Your task to perform on an android device: Open CNN.com Image 0: 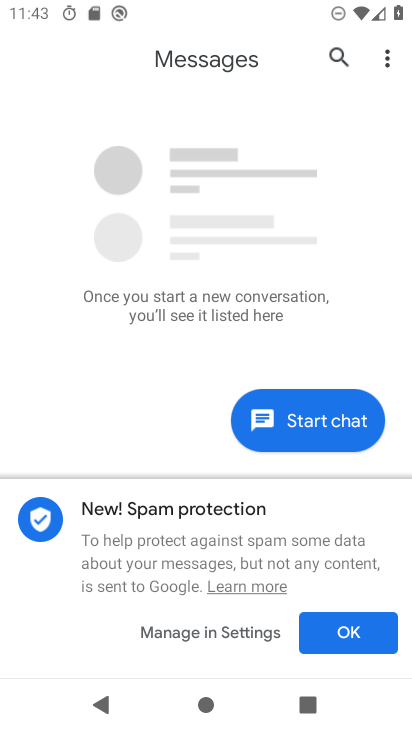
Step 0: drag from (187, 603) to (216, 207)
Your task to perform on an android device: Open CNN.com Image 1: 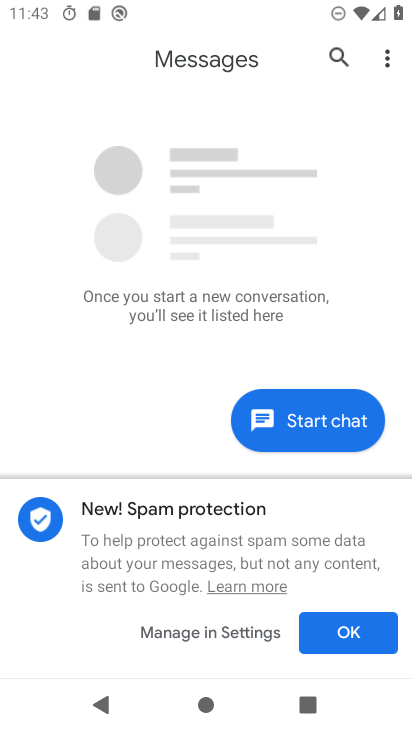
Step 1: press home button
Your task to perform on an android device: Open CNN.com Image 2: 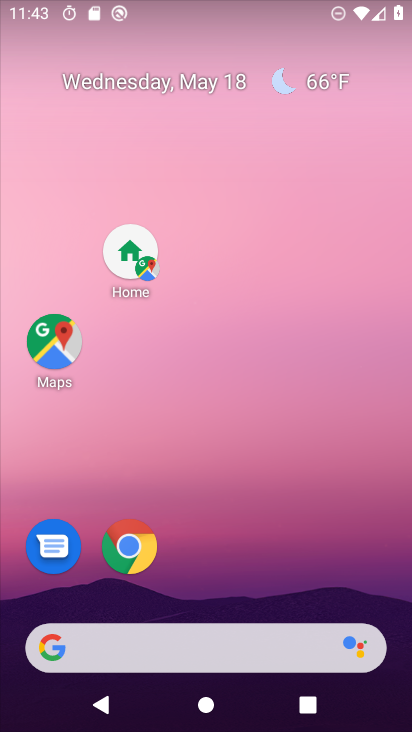
Step 2: click (158, 654)
Your task to perform on an android device: Open CNN.com Image 3: 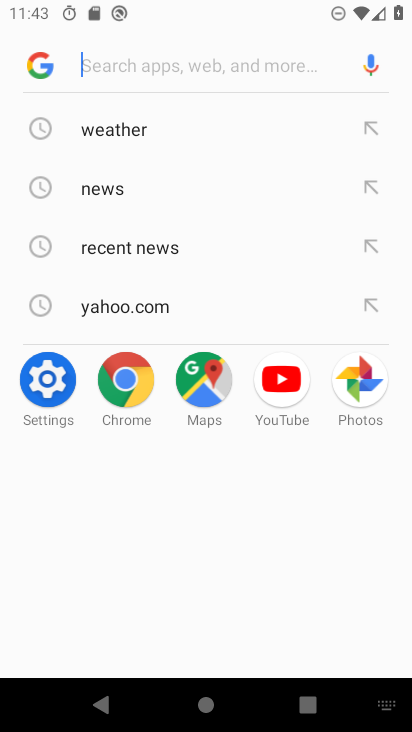
Step 3: type "cnn.com"
Your task to perform on an android device: Open CNN.com Image 4: 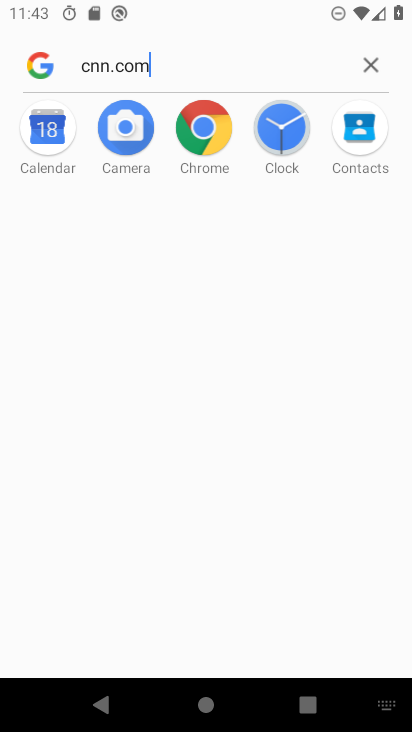
Step 4: type ""
Your task to perform on an android device: Open CNN.com Image 5: 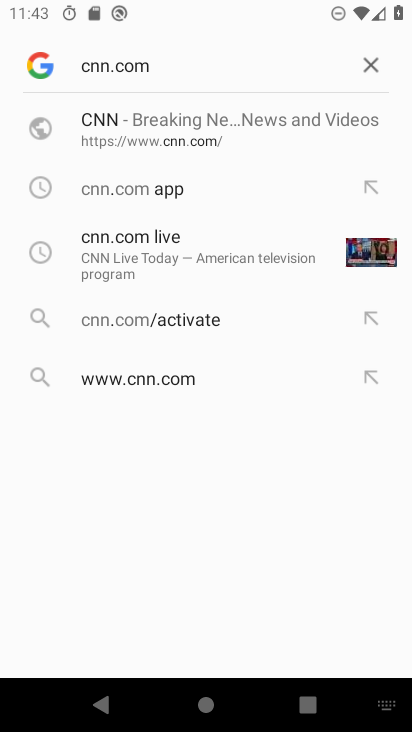
Step 5: click (106, 132)
Your task to perform on an android device: Open CNN.com Image 6: 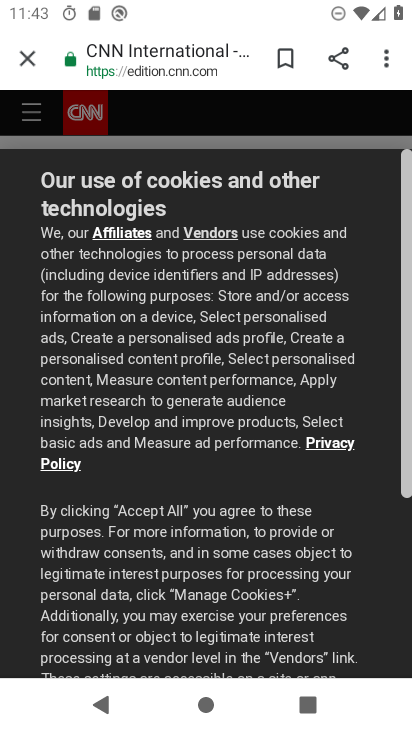
Step 6: task complete